Your task to perform on an android device: turn off airplane mode Image 0: 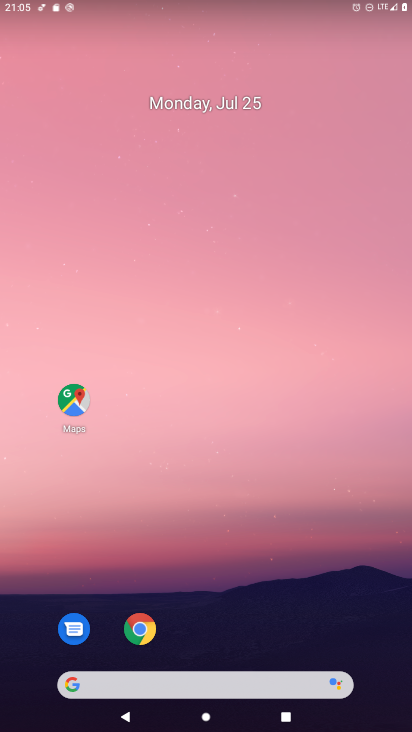
Step 0: drag from (187, 688) to (240, 119)
Your task to perform on an android device: turn off airplane mode Image 1: 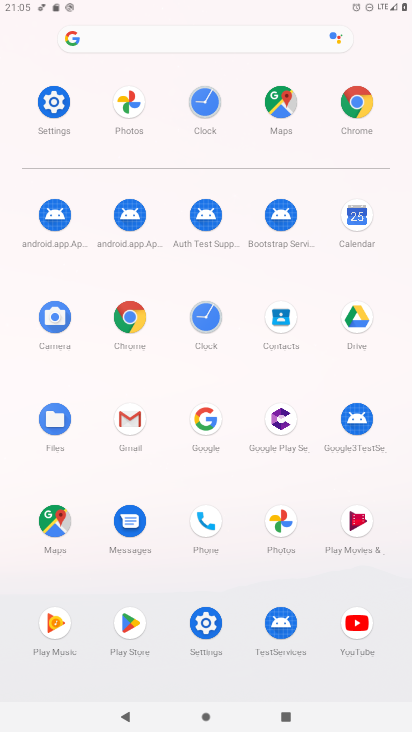
Step 1: click (52, 102)
Your task to perform on an android device: turn off airplane mode Image 2: 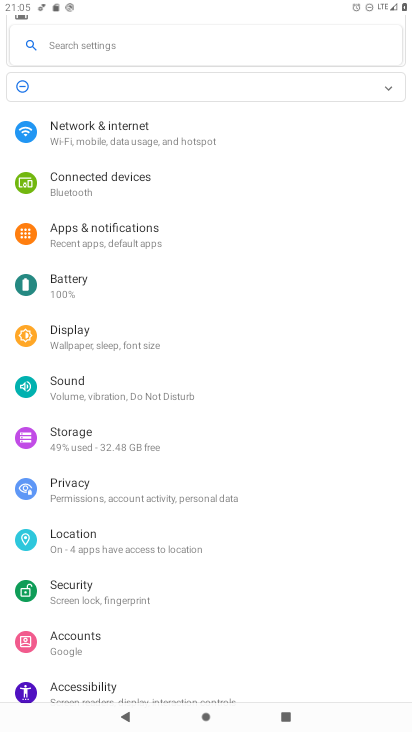
Step 2: click (72, 130)
Your task to perform on an android device: turn off airplane mode Image 3: 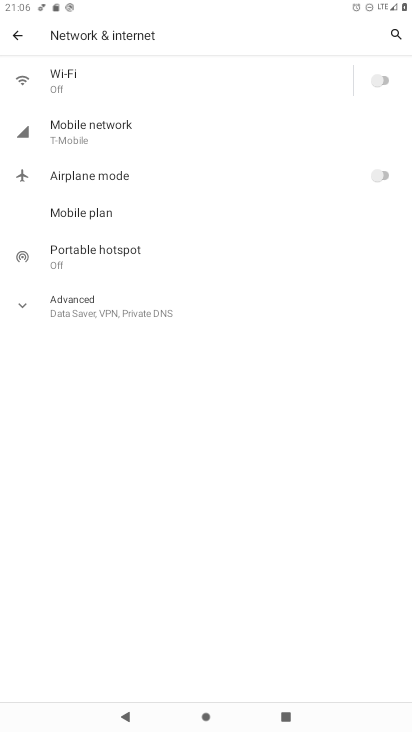
Step 3: task complete